Your task to perform on an android device: Play the latest video from the Wall Street Journal Image 0: 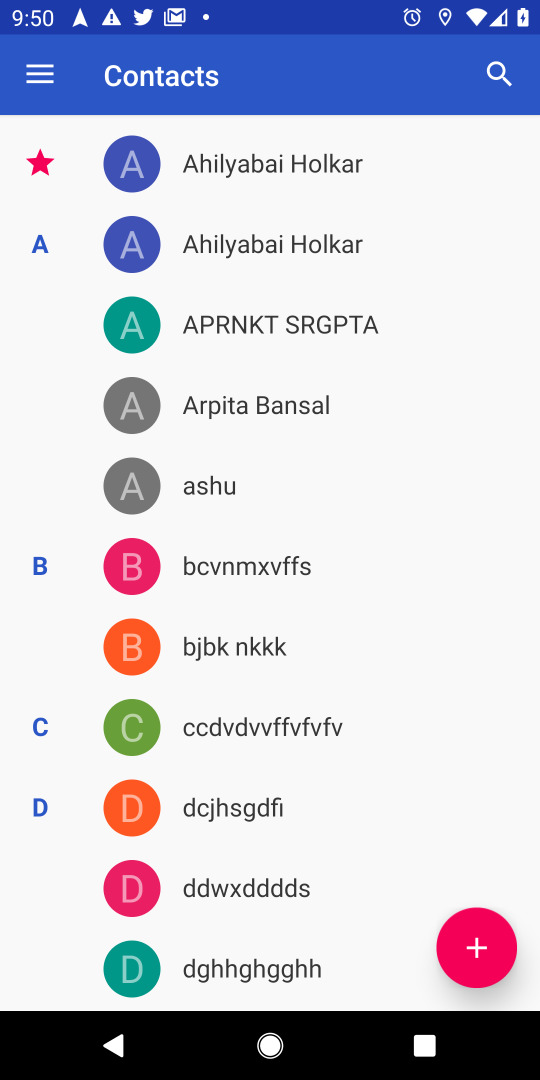
Step 0: press home button
Your task to perform on an android device: Play the latest video from the Wall Street Journal Image 1: 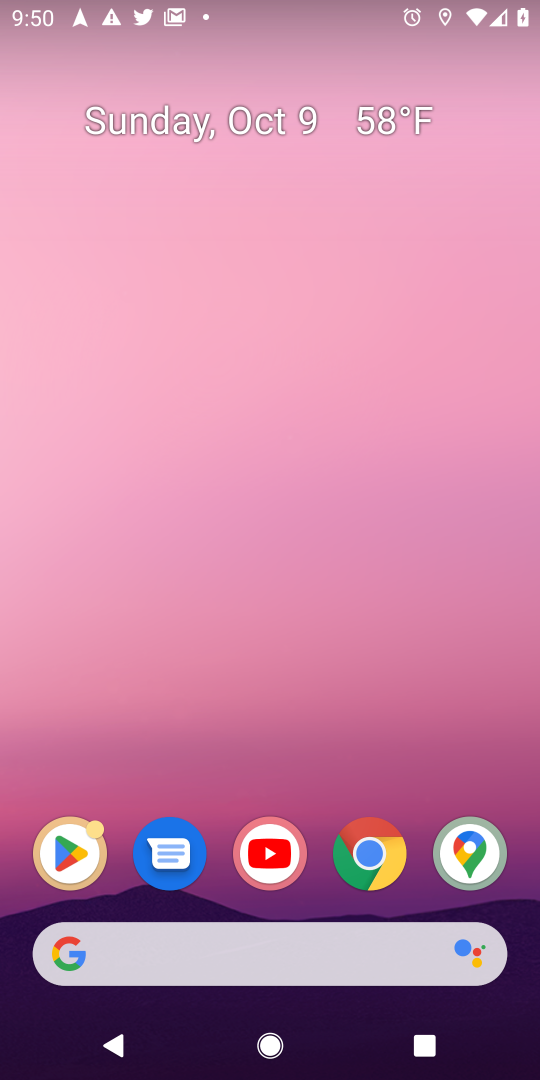
Step 1: click (384, 877)
Your task to perform on an android device: Play the latest video from the Wall Street Journal Image 2: 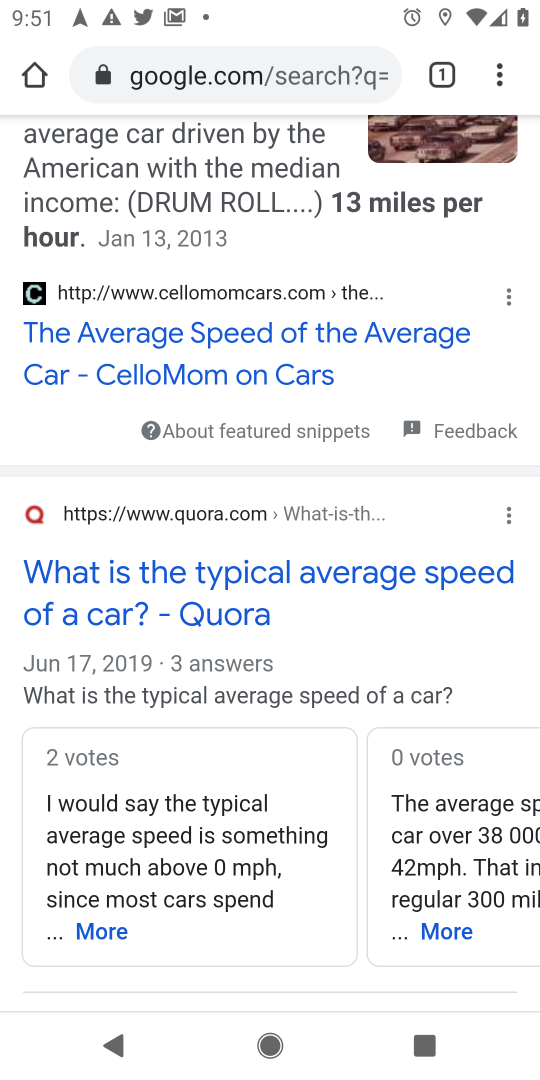
Step 2: press home button
Your task to perform on an android device: Play the latest video from the Wall Street Journal Image 3: 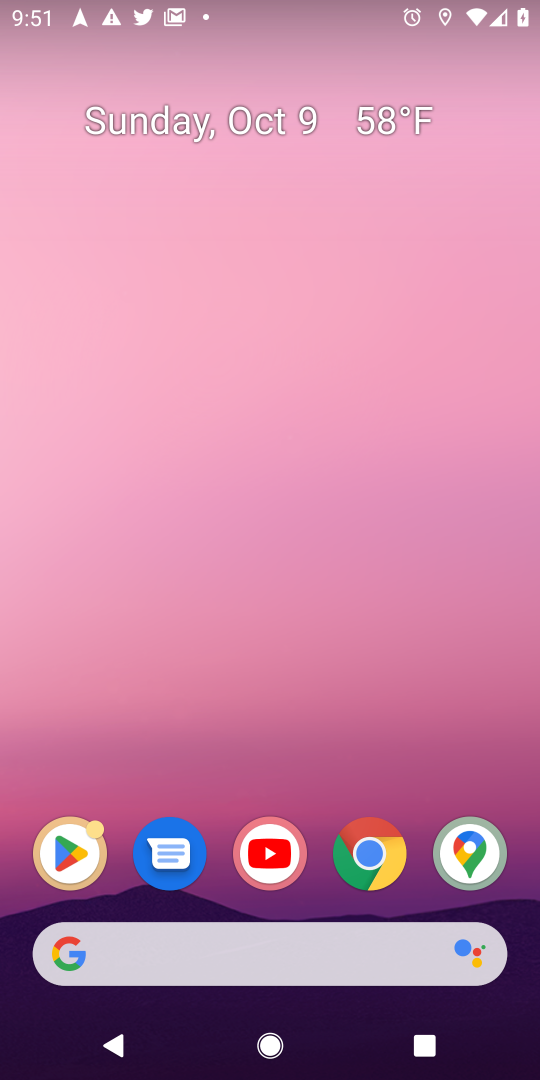
Step 3: click (283, 871)
Your task to perform on an android device: Play the latest video from the Wall Street Journal Image 4: 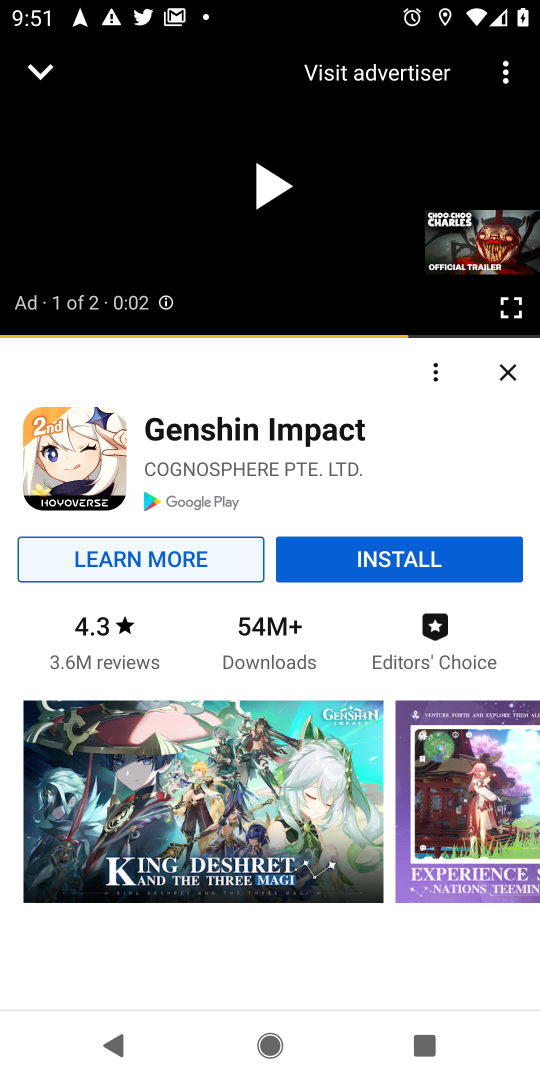
Step 4: drag from (313, 174) to (338, 1068)
Your task to perform on an android device: Play the latest video from the Wall Street Journal Image 5: 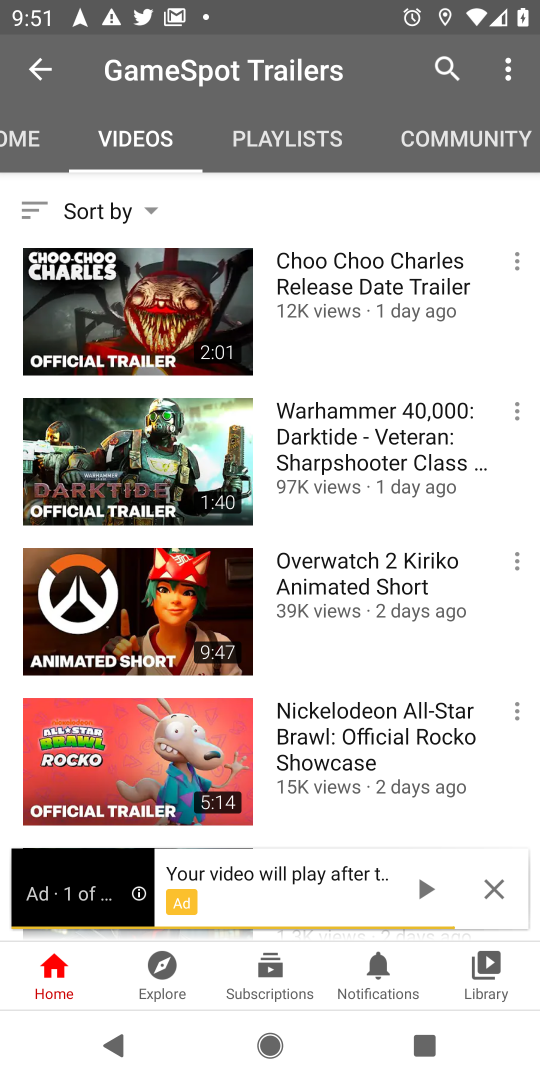
Step 5: click (498, 898)
Your task to perform on an android device: Play the latest video from the Wall Street Journal Image 6: 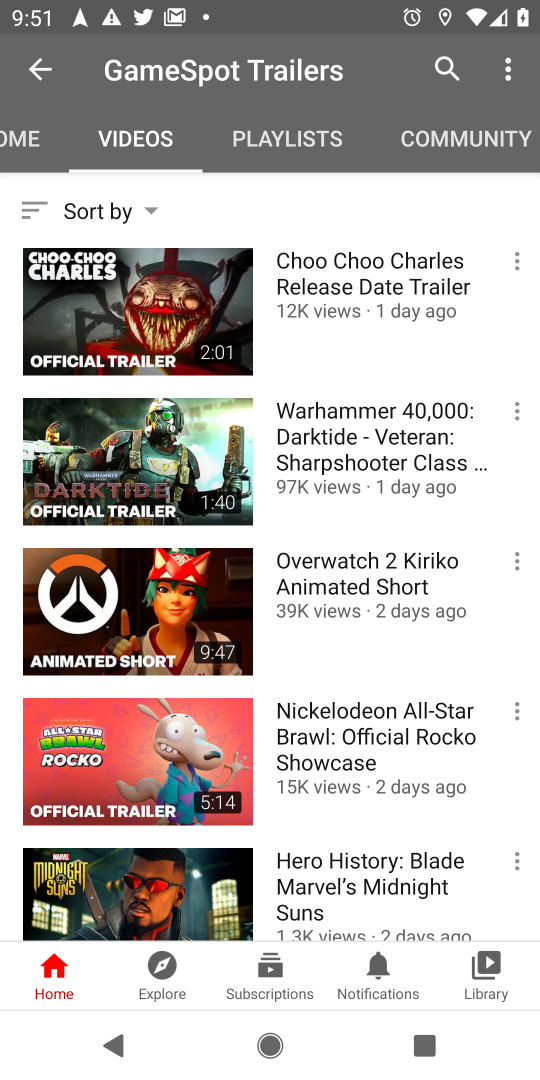
Step 6: click (459, 58)
Your task to perform on an android device: Play the latest video from the Wall Street Journal Image 7: 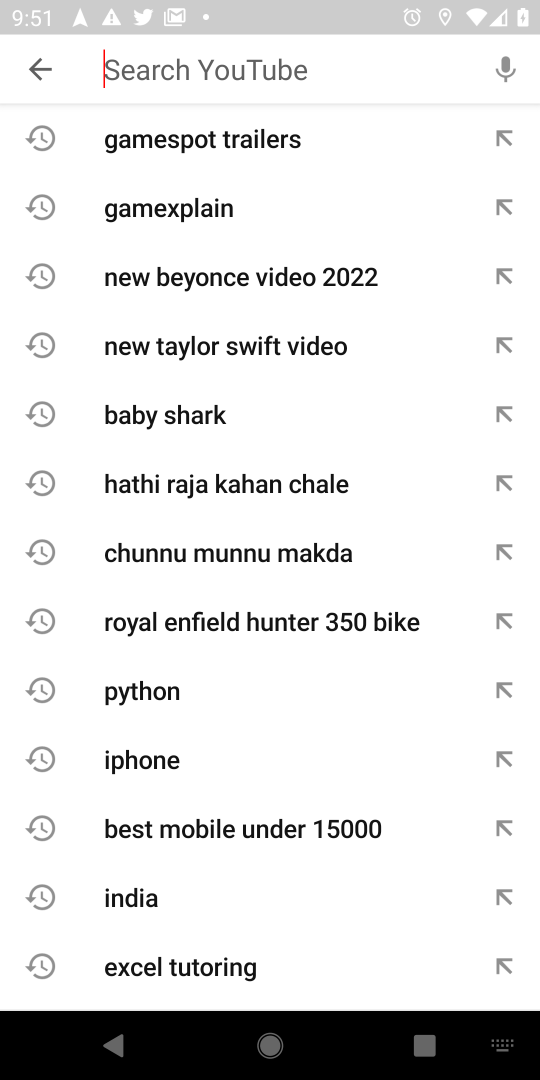
Step 7: type "wall street journal"
Your task to perform on an android device: Play the latest video from the Wall Street Journal Image 8: 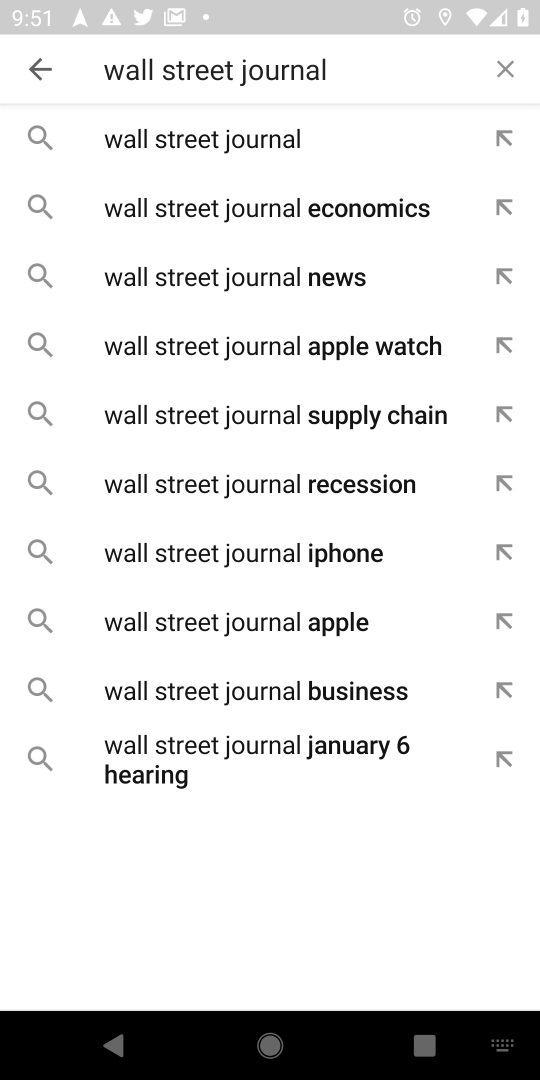
Step 8: click (279, 138)
Your task to perform on an android device: Play the latest video from the Wall Street Journal Image 9: 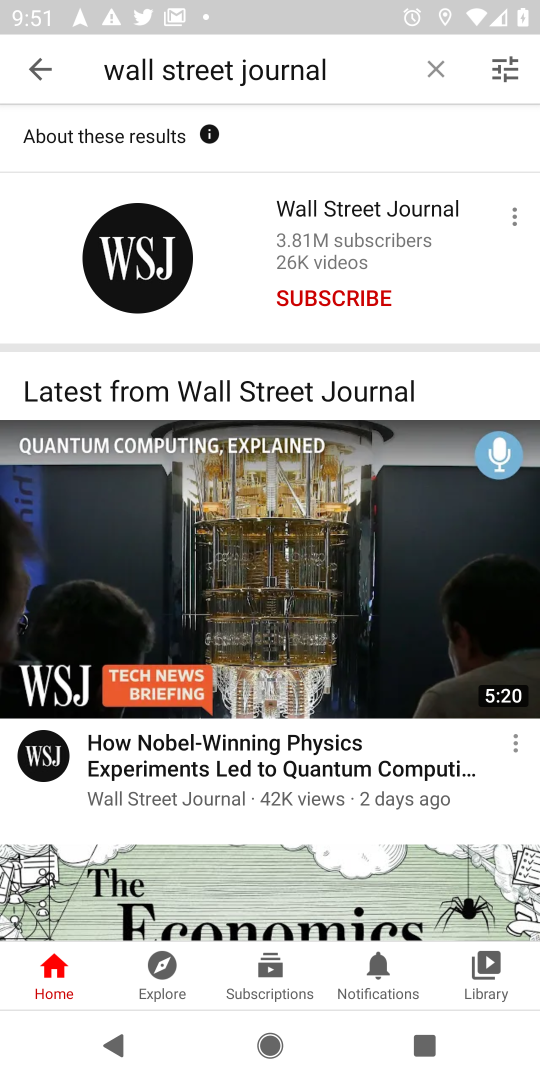
Step 9: click (367, 211)
Your task to perform on an android device: Play the latest video from the Wall Street Journal Image 10: 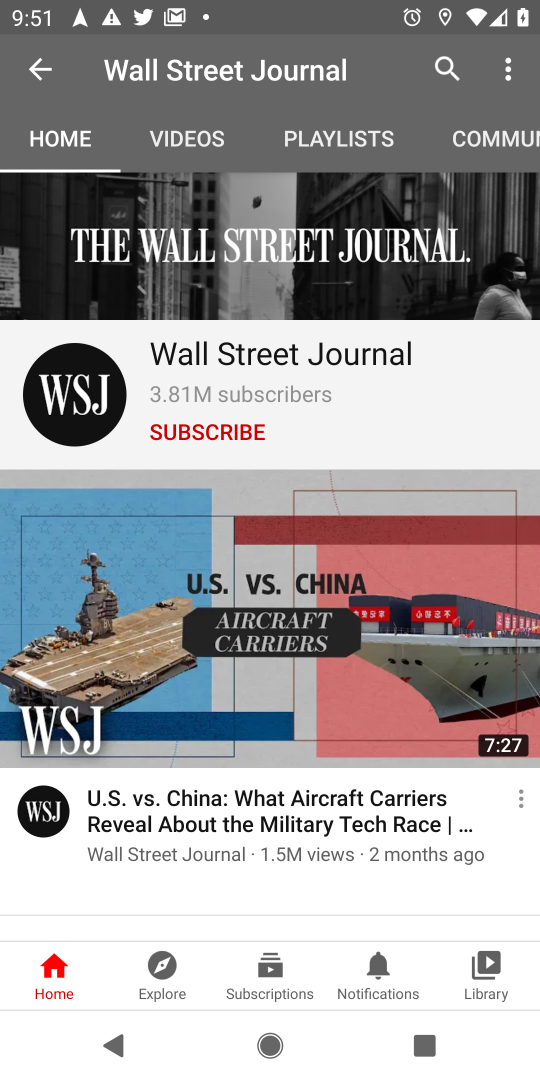
Step 10: click (206, 160)
Your task to perform on an android device: Play the latest video from the Wall Street Journal Image 11: 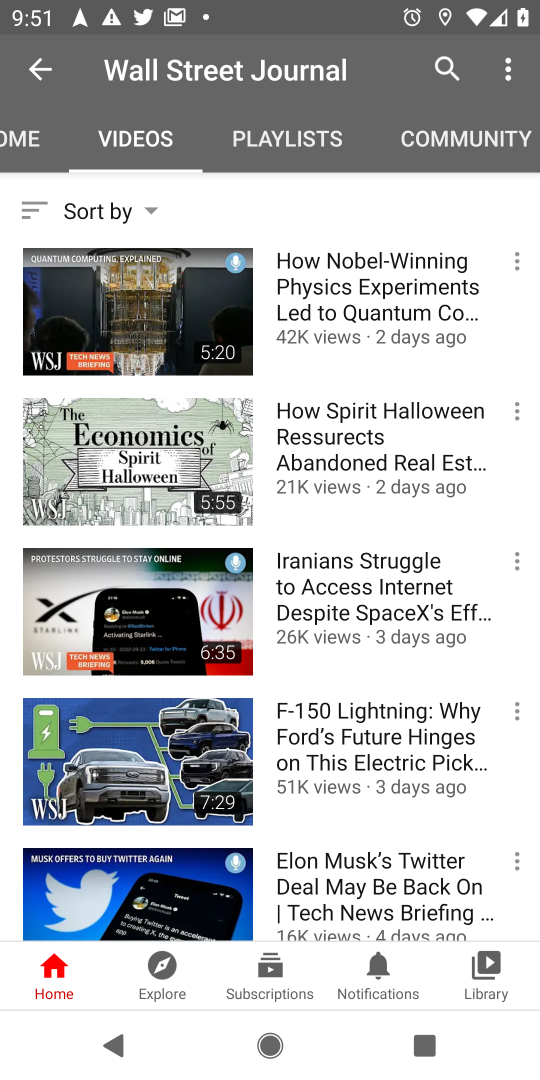
Step 11: click (280, 283)
Your task to perform on an android device: Play the latest video from the Wall Street Journal Image 12: 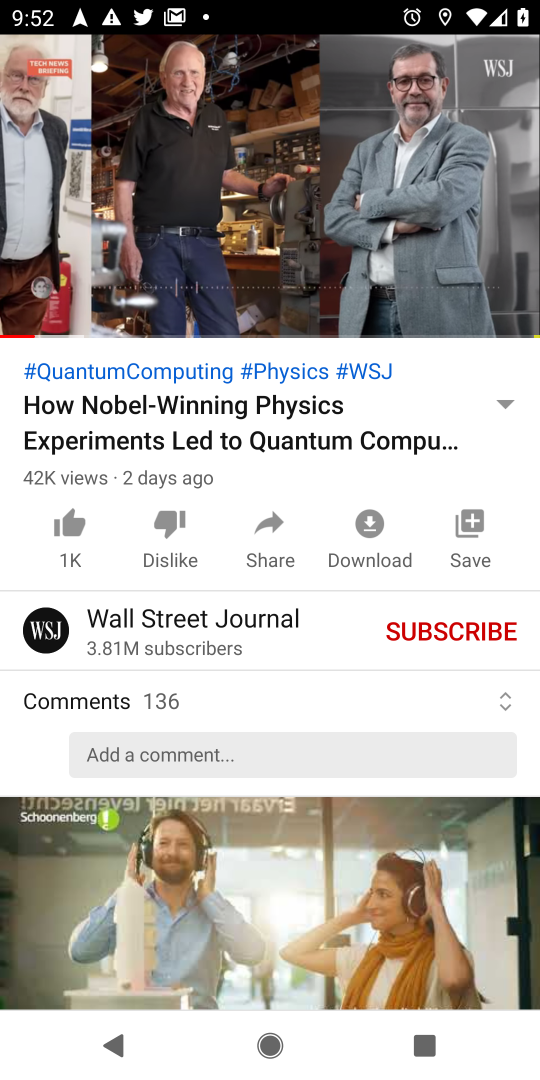
Step 12: task complete